Your task to perform on an android device: toggle sleep mode Image 0: 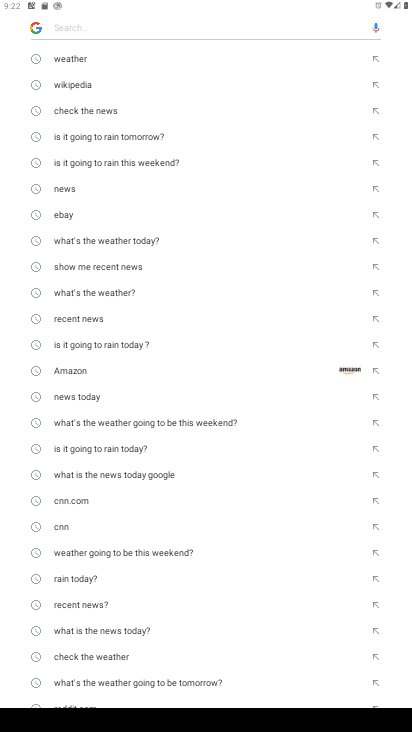
Step 0: press home button
Your task to perform on an android device: toggle sleep mode Image 1: 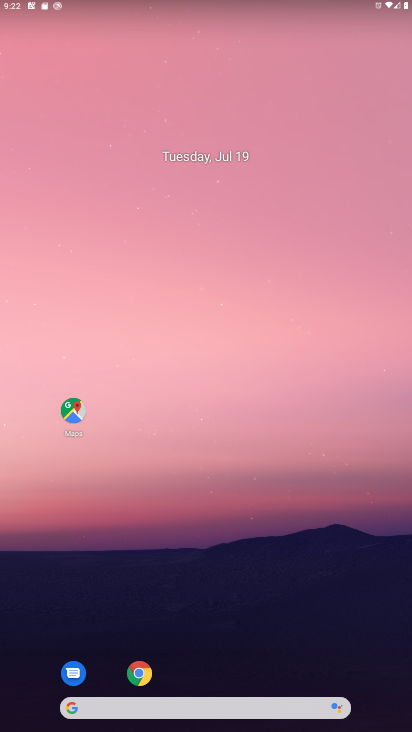
Step 1: drag from (352, 652) to (316, 180)
Your task to perform on an android device: toggle sleep mode Image 2: 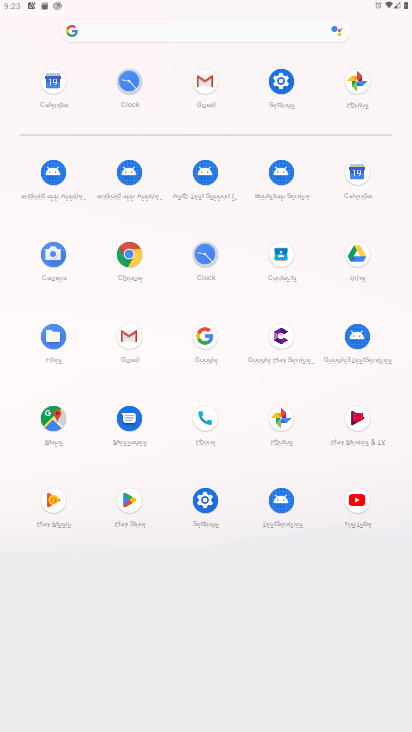
Step 2: click (206, 502)
Your task to perform on an android device: toggle sleep mode Image 3: 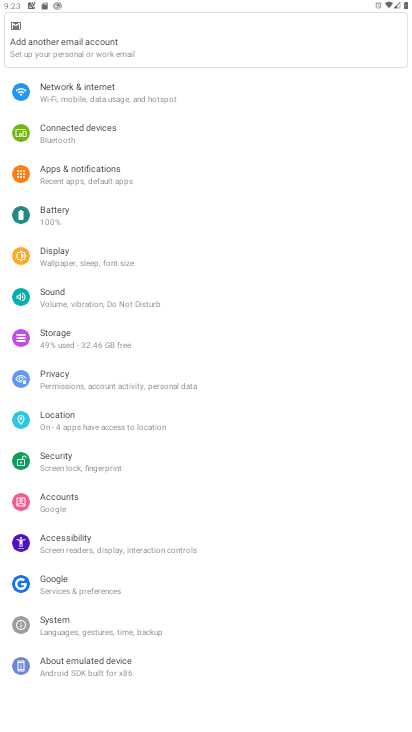
Step 3: click (65, 257)
Your task to perform on an android device: toggle sleep mode Image 4: 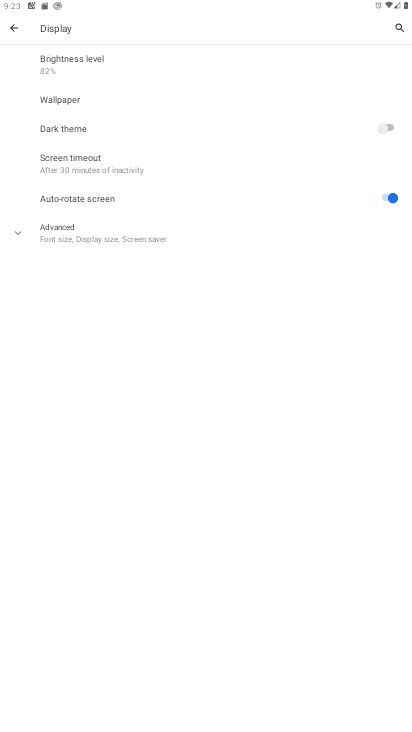
Step 4: click (14, 235)
Your task to perform on an android device: toggle sleep mode Image 5: 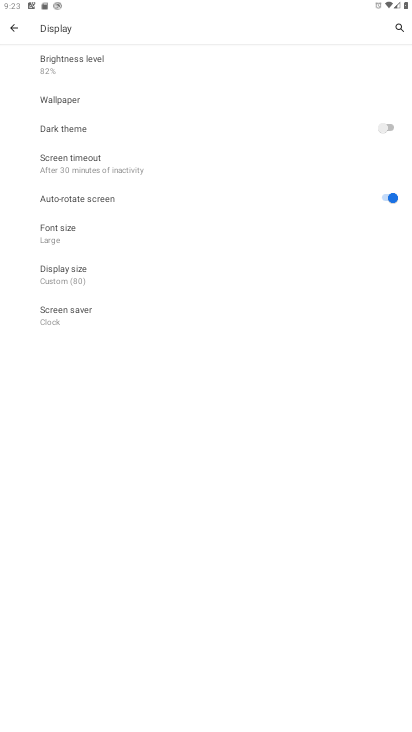
Step 5: task complete